Your task to perform on an android device: What's on my calendar today? Image 0: 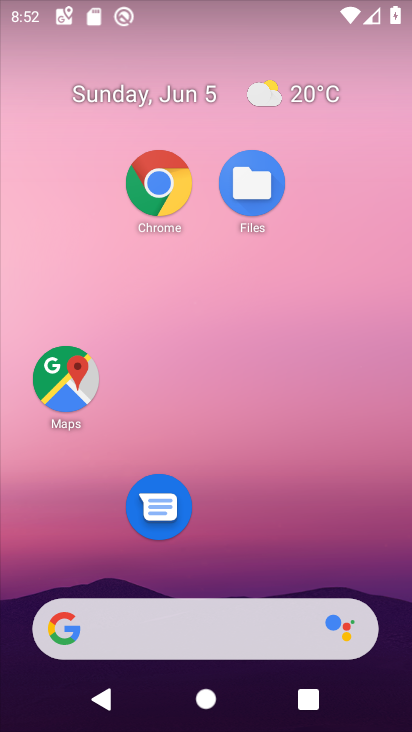
Step 0: drag from (181, 584) to (124, 21)
Your task to perform on an android device: What's on my calendar today? Image 1: 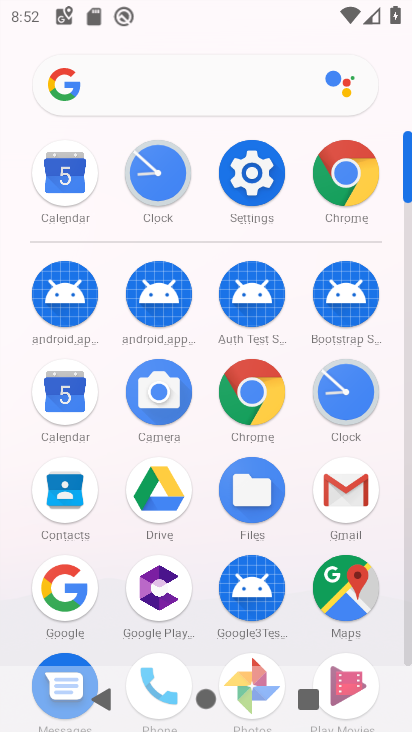
Step 1: click (66, 393)
Your task to perform on an android device: What's on my calendar today? Image 2: 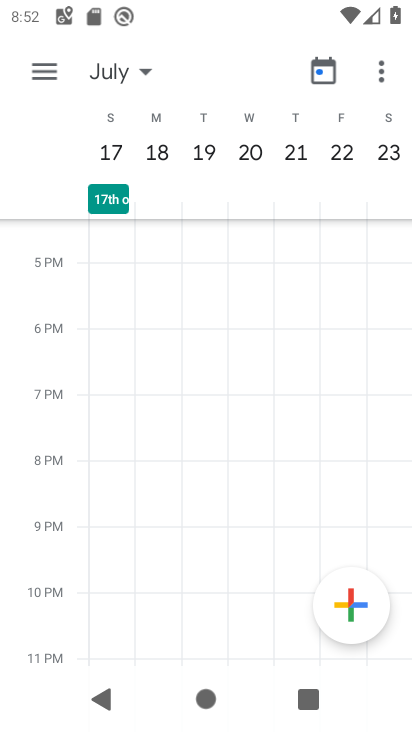
Step 2: click (317, 66)
Your task to perform on an android device: What's on my calendar today? Image 3: 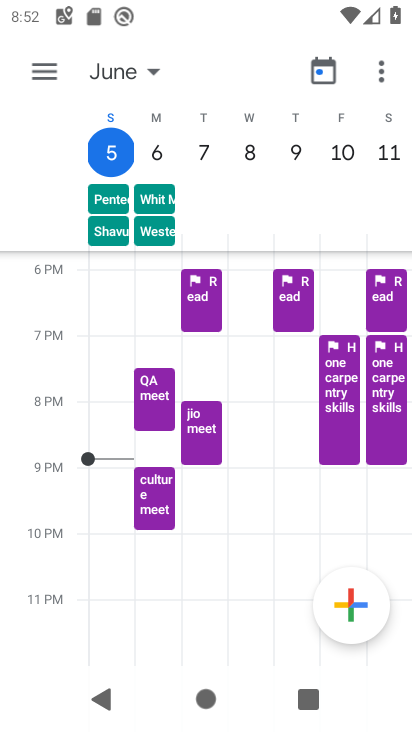
Step 3: click (107, 151)
Your task to perform on an android device: What's on my calendar today? Image 4: 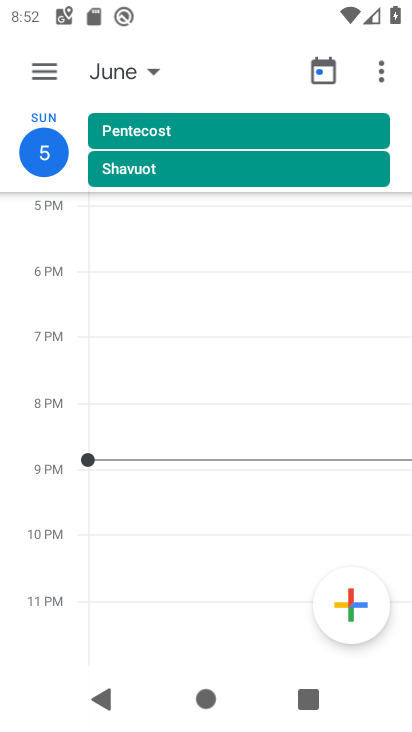
Step 4: task complete